Your task to perform on an android device: Open wifi settings Image 0: 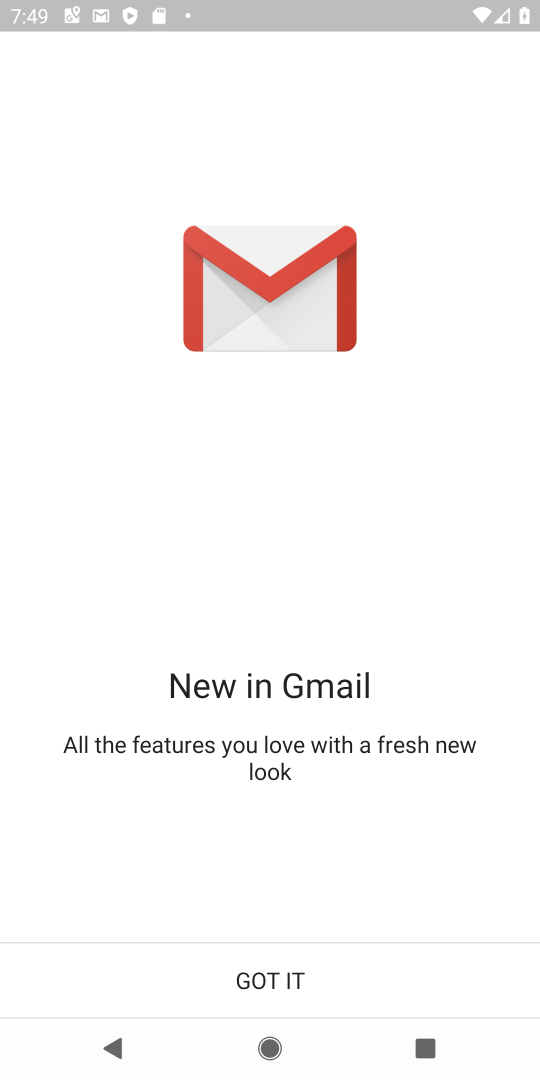
Step 0: press home button
Your task to perform on an android device: Open wifi settings Image 1: 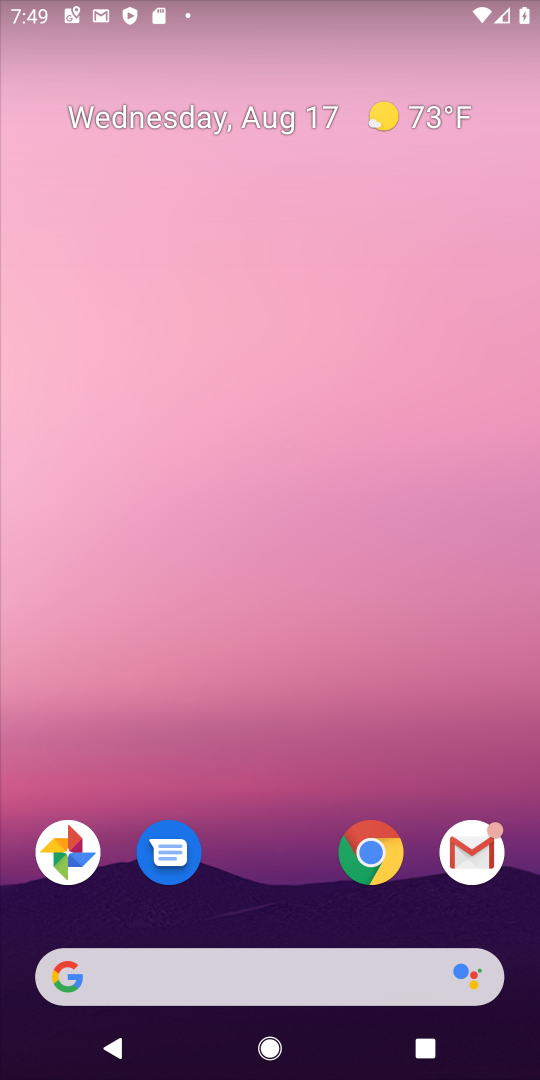
Step 1: drag from (266, 909) to (242, 328)
Your task to perform on an android device: Open wifi settings Image 2: 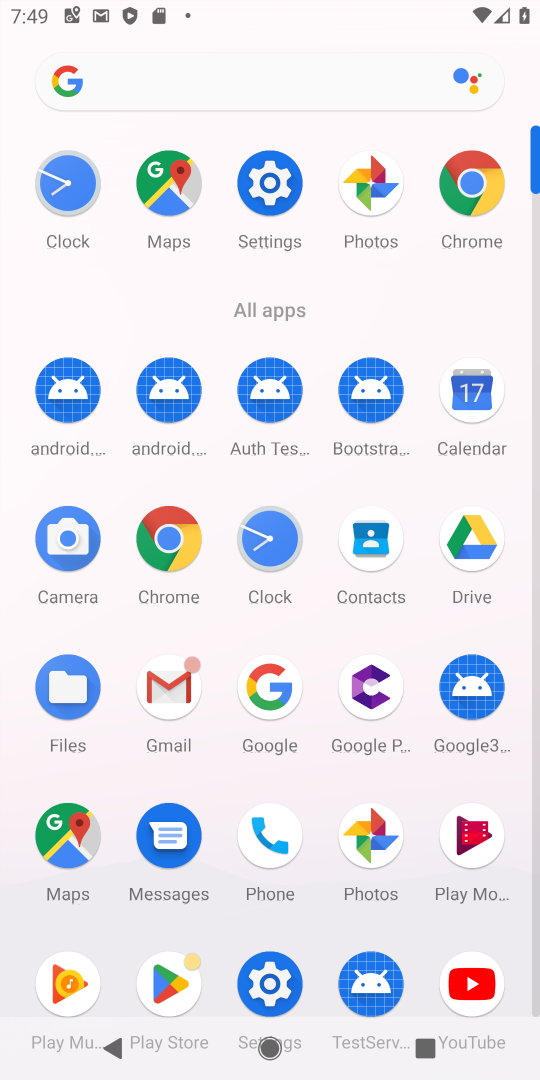
Step 2: click (272, 182)
Your task to perform on an android device: Open wifi settings Image 3: 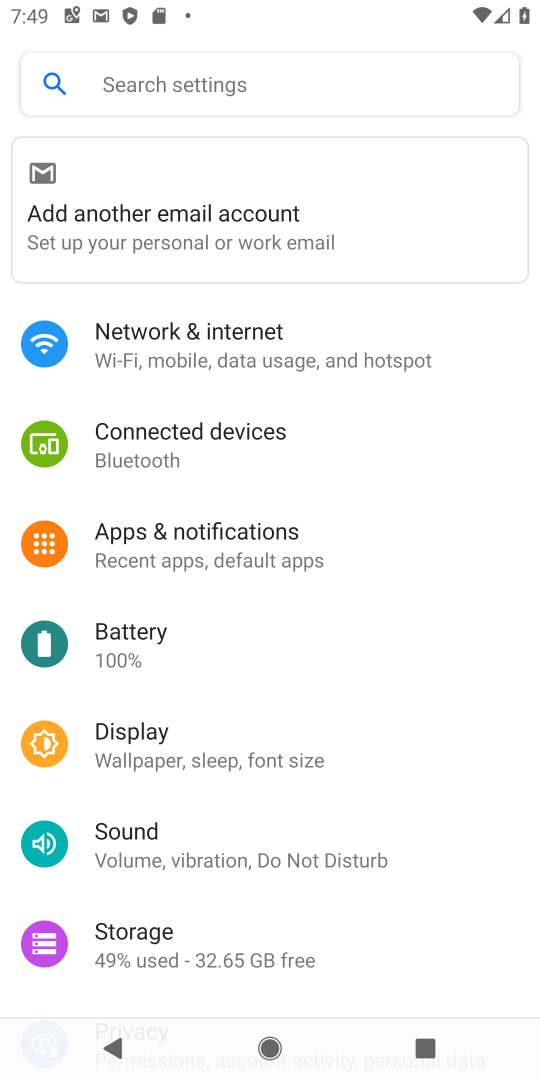
Step 3: click (208, 339)
Your task to perform on an android device: Open wifi settings Image 4: 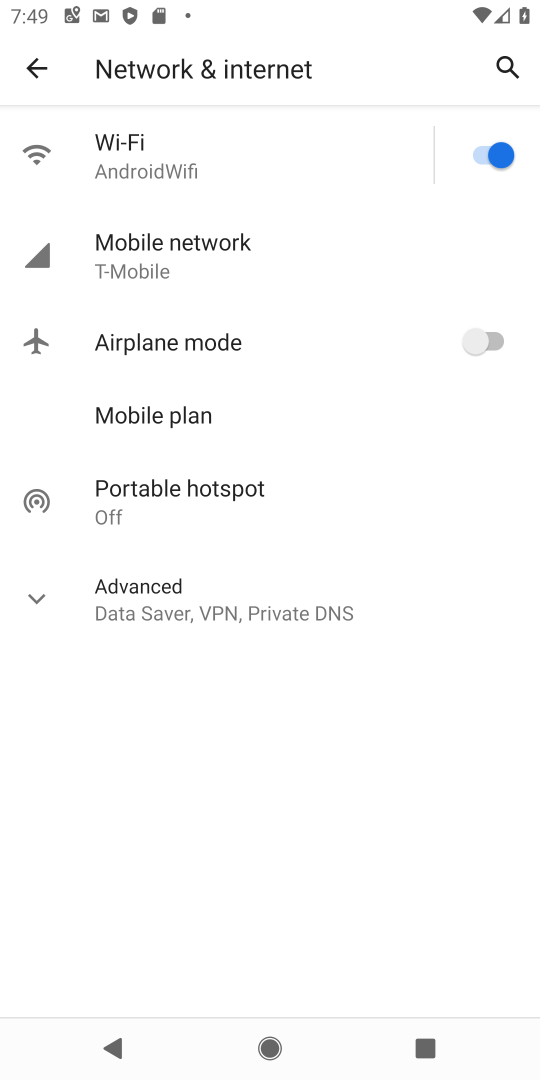
Step 4: click (130, 136)
Your task to perform on an android device: Open wifi settings Image 5: 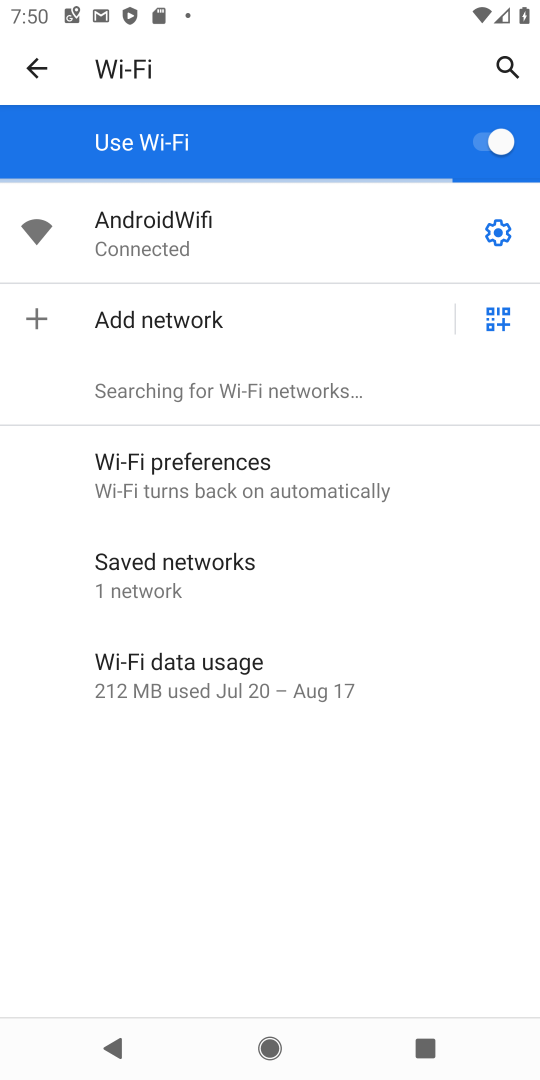
Step 5: task complete